Your task to perform on an android device: Is it going to rain today? Image 0: 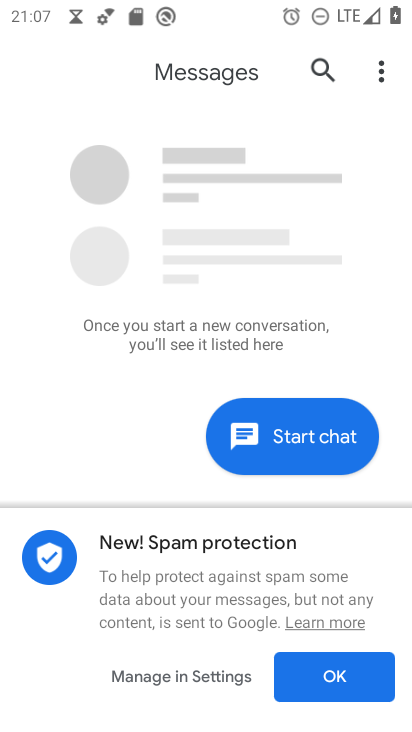
Step 0: press home button
Your task to perform on an android device: Is it going to rain today? Image 1: 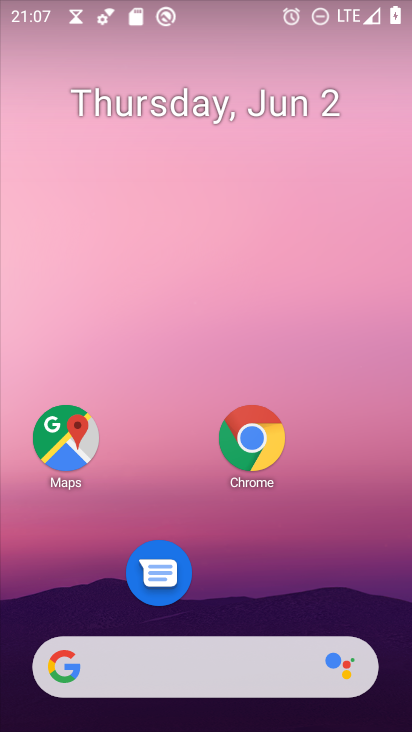
Step 1: click (75, 671)
Your task to perform on an android device: Is it going to rain today? Image 2: 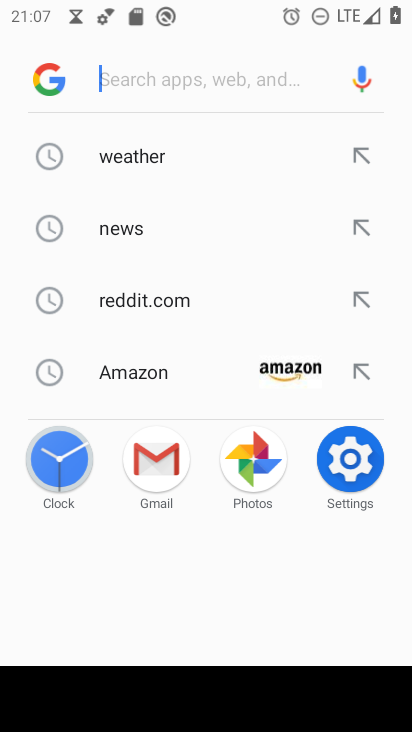
Step 2: click (148, 164)
Your task to perform on an android device: Is it going to rain today? Image 3: 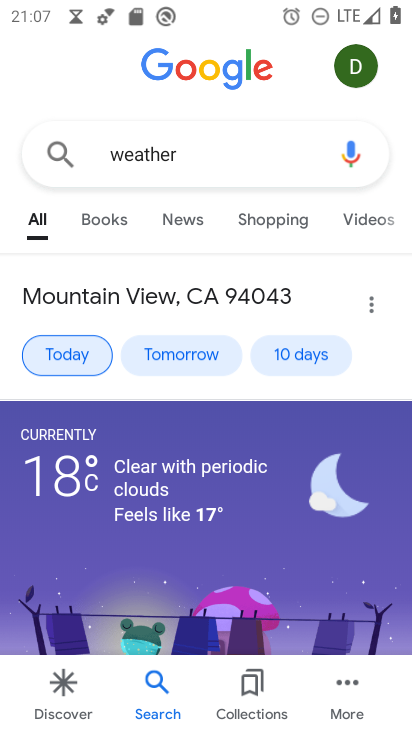
Step 3: task complete